Your task to perform on an android device: Go to privacy settings Image 0: 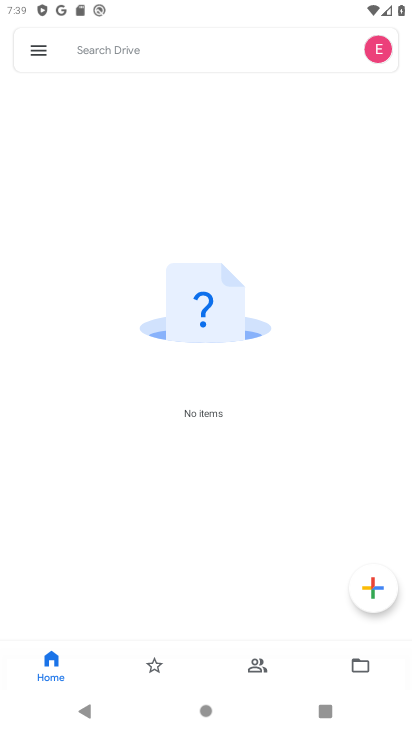
Step 0: press home button
Your task to perform on an android device: Go to privacy settings Image 1: 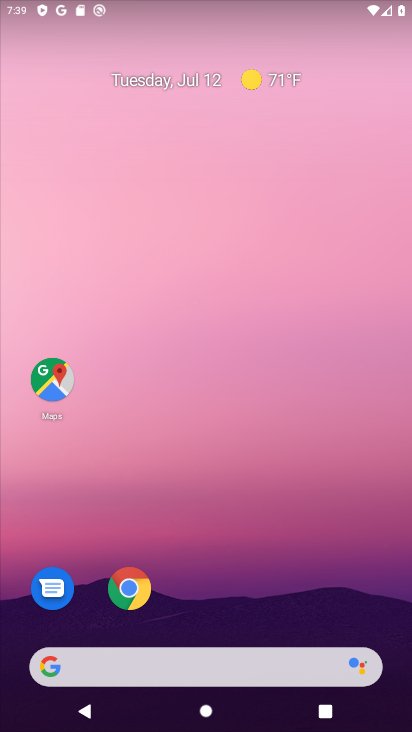
Step 1: drag from (47, 665) to (268, 8)
Your task to perform on an android device: Go to privacy settings Image 2: 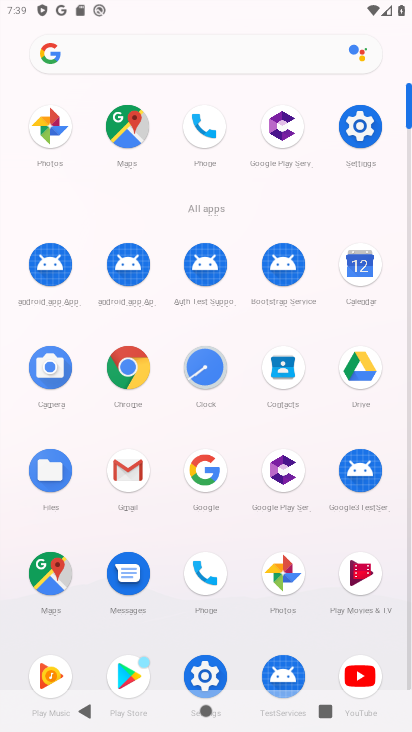
Step 2: click (208, 671)
Your task to perform on an android device: Go to privacy settings Image 3: 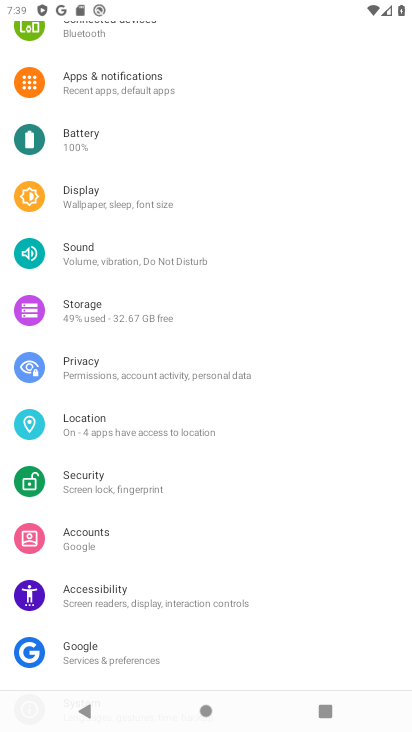
Step 3: click (110, 371)
Your task to perform on an android device: Go to privacy settings Image 4: 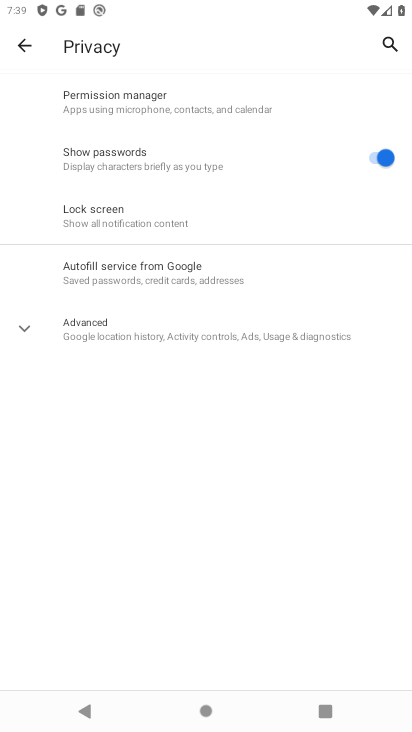
Step 4: task complete